Your task to perform on an android device: change the clock display to analog Image 0: 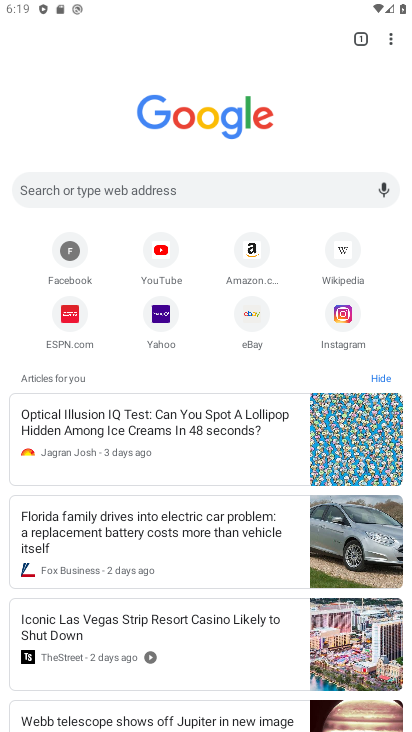
Step 0: press home button
Your task to perform on an android device: change the clock display to analog Image 1: 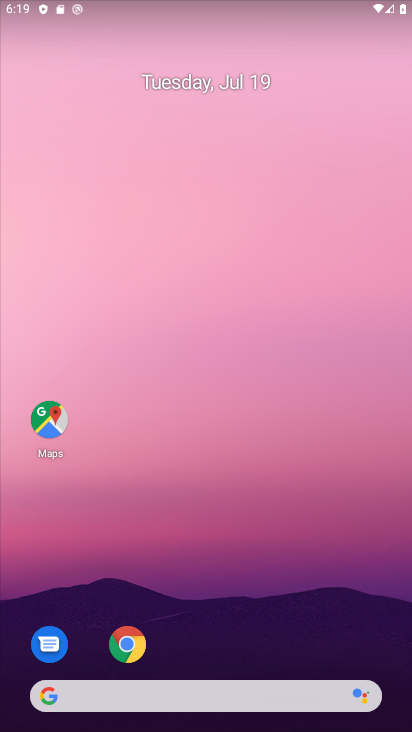
Step 1: drag from (292, 304) to (290, 171)
Your task to perform on an android device: change the clock display to analog Image 2: 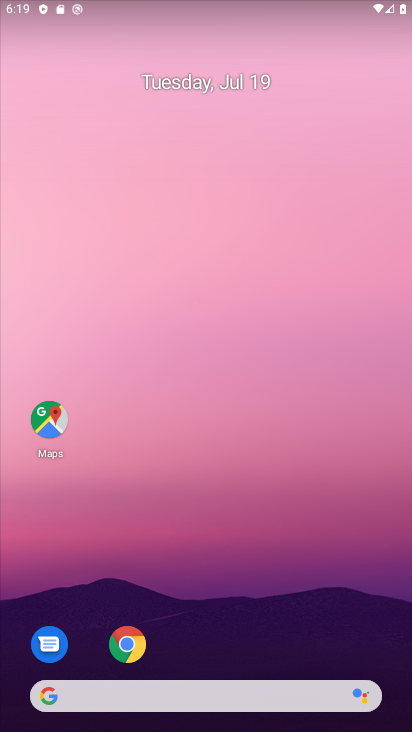
Step 2: drag from (271, 484) to (307, 94)
Your task to perform on an android device: change the clock display to analog Image 3: 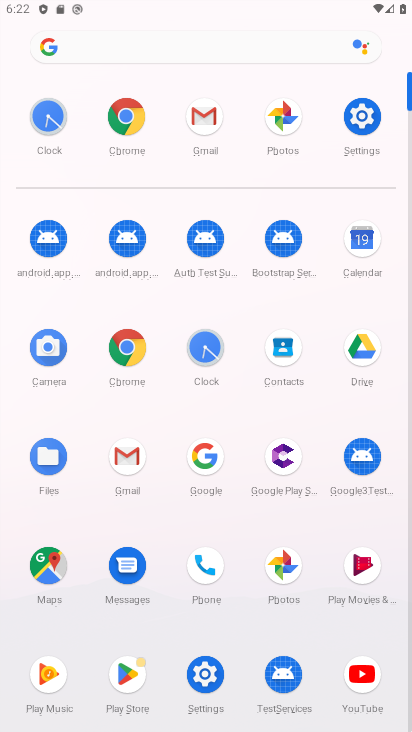
Step 3: click (200, 350)
Your task to perform on an android device: change the clock display to analog Image 4: 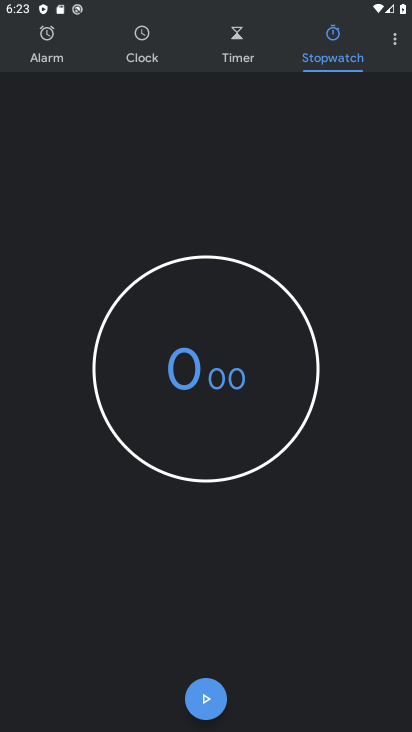
Step 4: click (392, 41)
Your task to perform on an android device: change the clock display to analog Image 5: 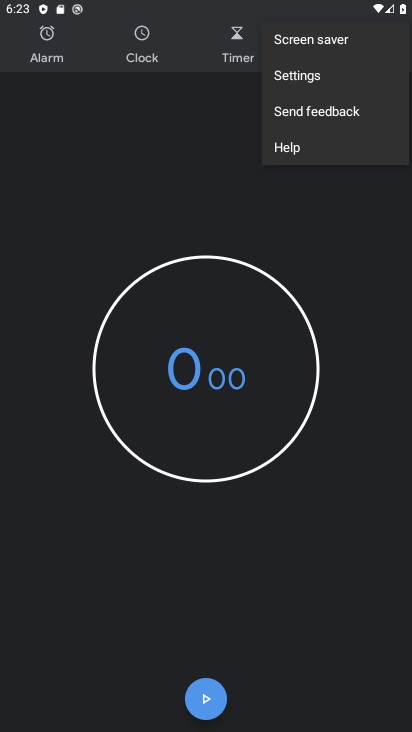
Step 5: click (293, 83)
Your task to perform on an android device: change the clock display to analog Image 6: 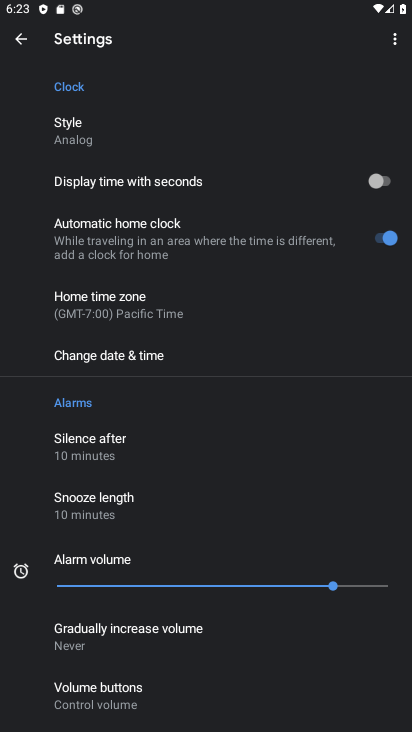
Step 6: click (75, 125)
Your task to perform on an android device: change the clock display to analog Image 7: 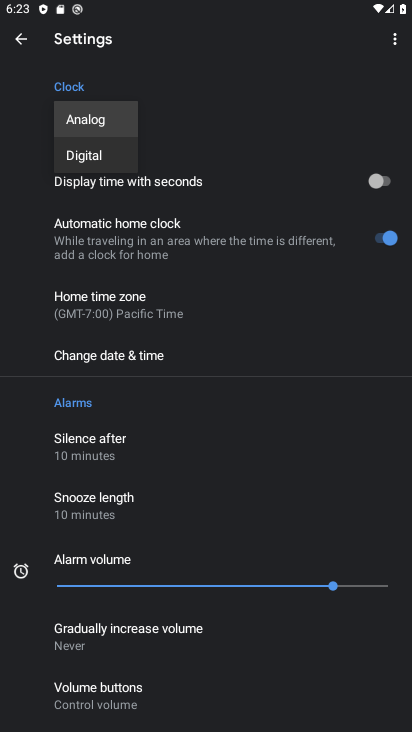
Step 7: click (104, 155)
Your task to perform on an android device: change the clock display to analog Image 8: 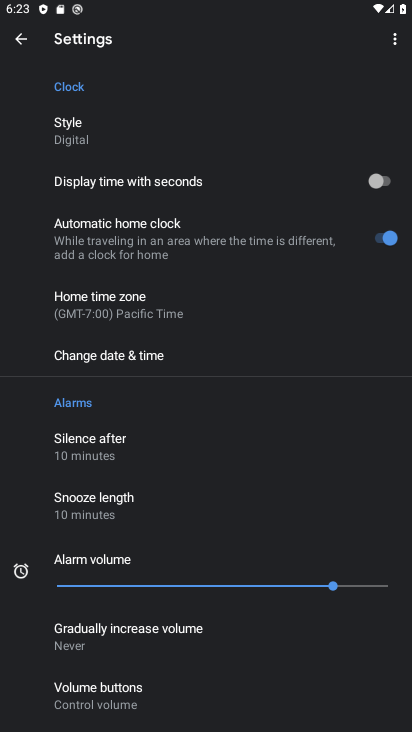
Step 8: task complete